Your task to perform on an android device: Go to Google Image 0: 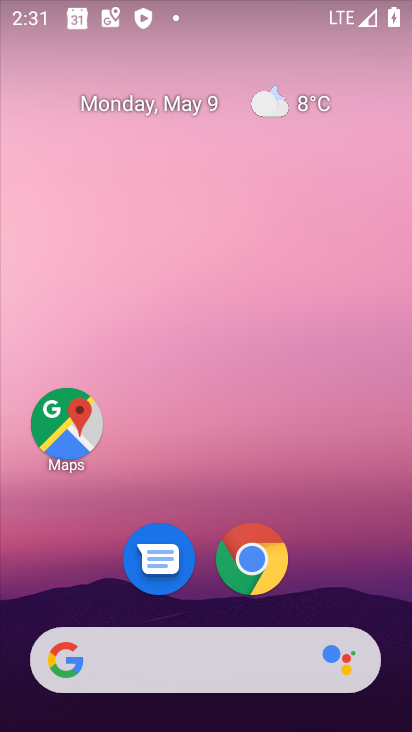
Step 0: click (129, 660)
Your task to perform on an android device: Go to Google Image 1: 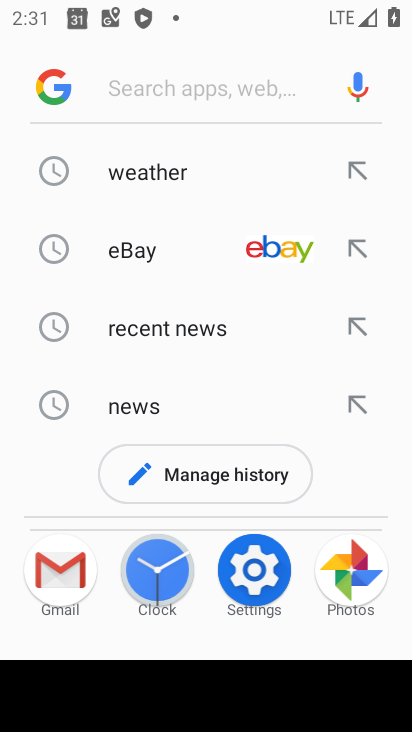
Step 1: task complete